Your task to perform on an android device: change keyboard looks Image 0: 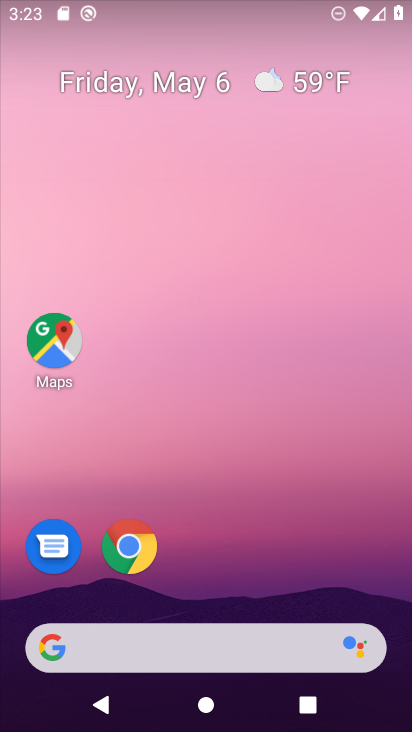
Step 0: drag from (221, 624) to (228, 274)
Your task to perform on an android device: change keyboard looks Image 1: 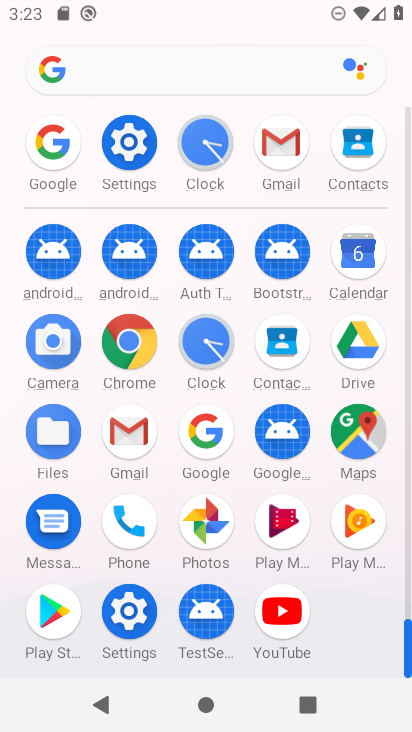
Step 1: drag from (183, 597) to (215, 322)
Your task to perform on an android device: change keyboard looks Image 2: 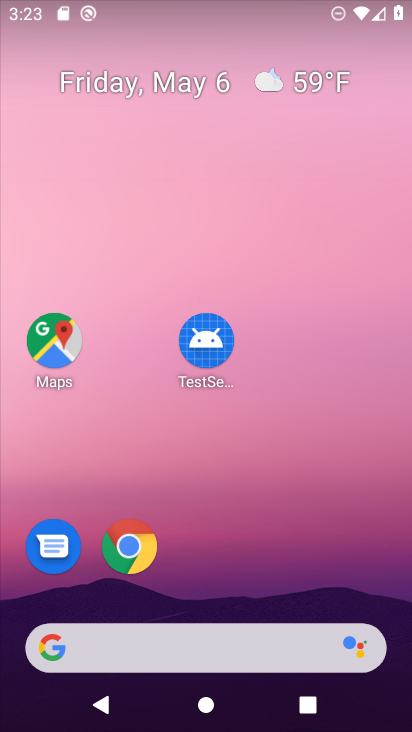
Step 2: click (140, 136)
Your task to perform on an android device: change keyboard looks Image 3: 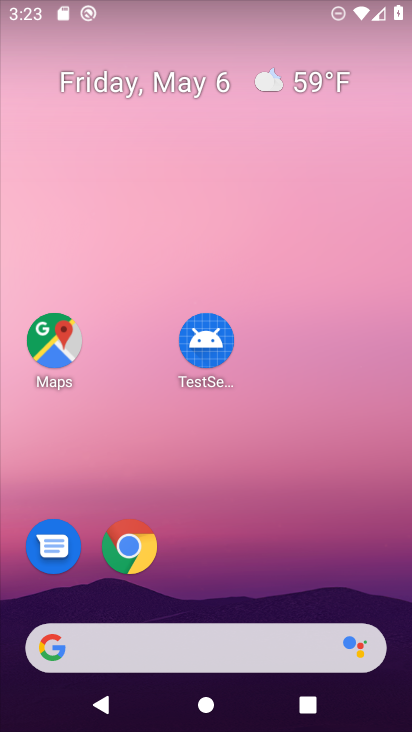
Step 3: drag from (193, 622) to (193, 191)
Your task to perform on an android device: change keyboard looks Image 4: 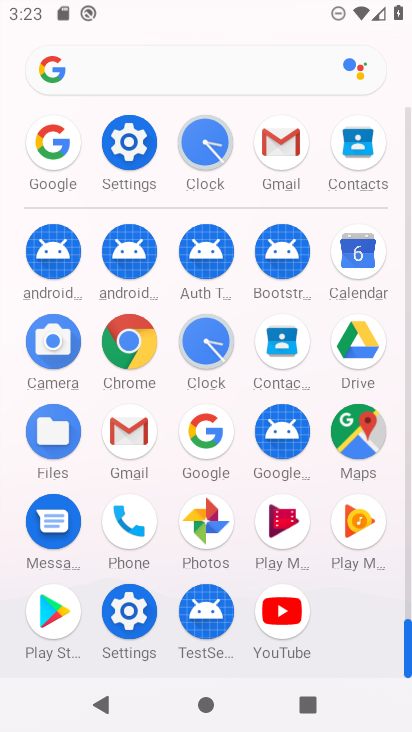
Step 4: click (129, 136)
Your task to perform on an android device: change keyboard looks Image 5: 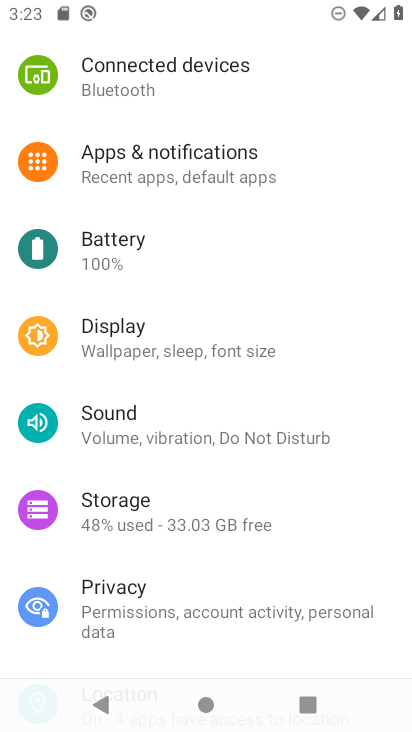
Step 5: drag from (123, 660) to (184, 267)
Your task to perform on an android device: change keyboard looks Image 6: 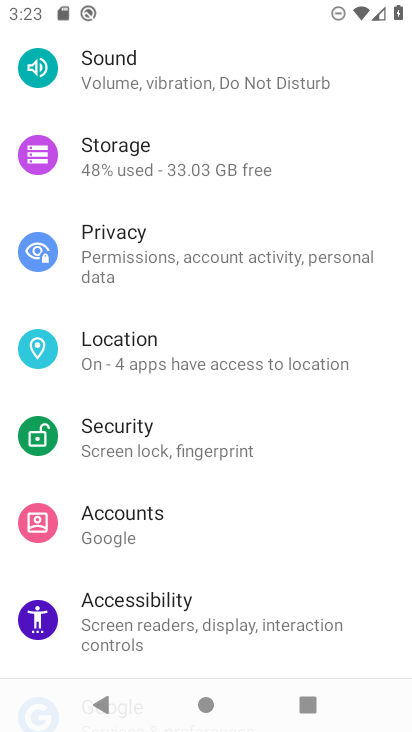
Step 6: drag from (121, 620) to (162, 312)
Your task to perform on an android device: change keyboard looks Image 7: 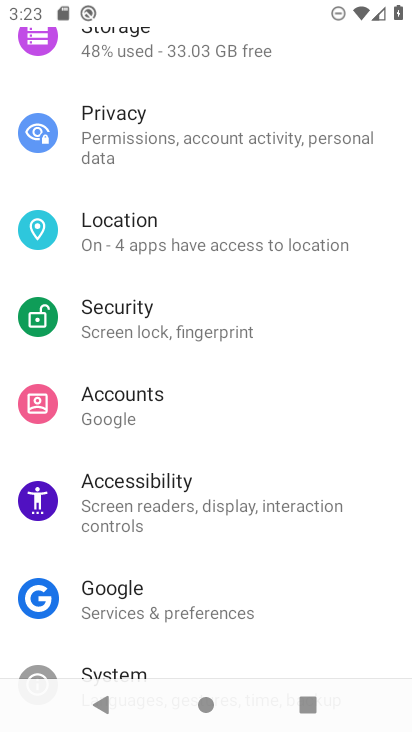
Step 7: drag from (209, 664) to (199, 385)
Your task to perform on an android device: change keyboard looks Image 8: 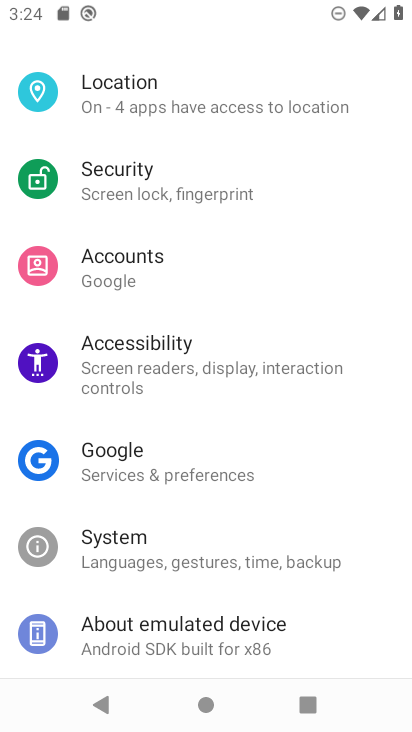
Step 8: click (168, 549)
Your task to perform on an android device: change keyboard looks Image 9: 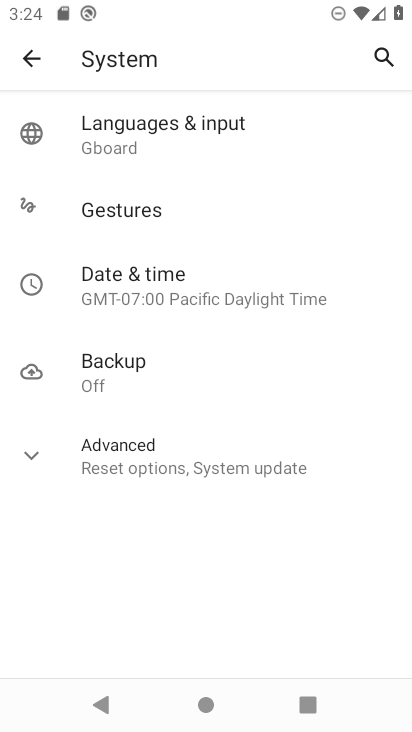
Step 9: click (142, 128)
Your task to perform on an android device: change keyboard looks Image 10: 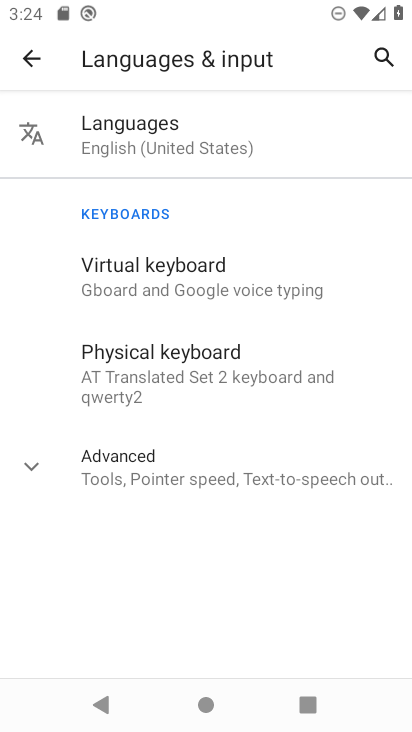
Step 10: click (142, 269)
Your task to perform on an android device: change keyboard looks Image 11: 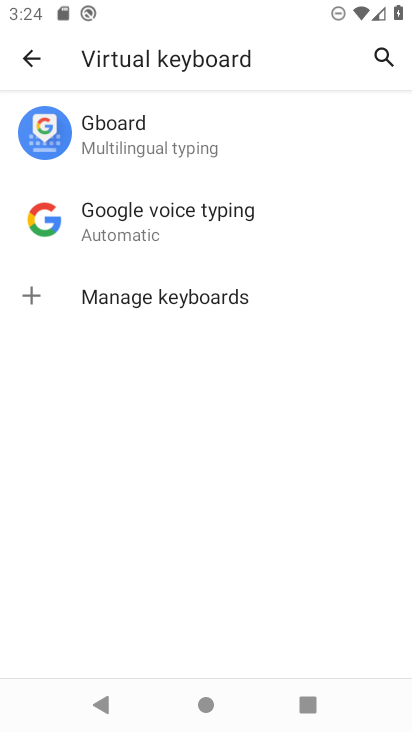
Step 11: click (147, 130)
Your task to perform on an android device: change keyboard looks Image 12: 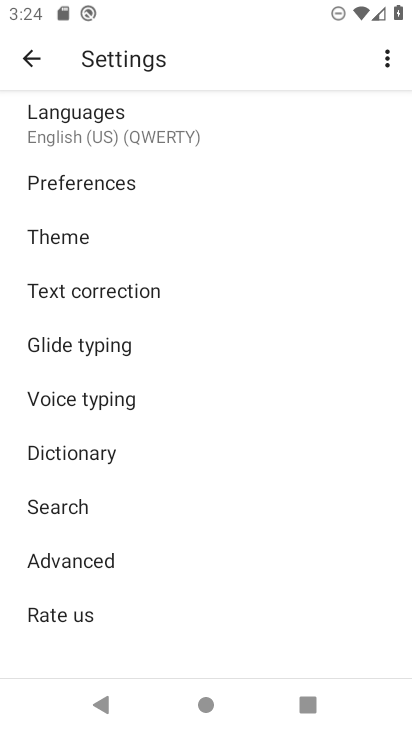
Step 12: click (49, 239)
Your task to perform on an android device: change keyboard looks Image 13: 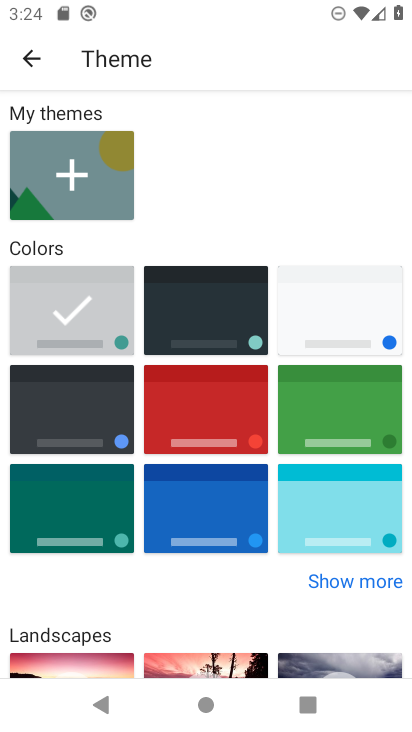
Step 13: click (213, 331)
Your task to perform on an android device: change keyboard looks Image 14: 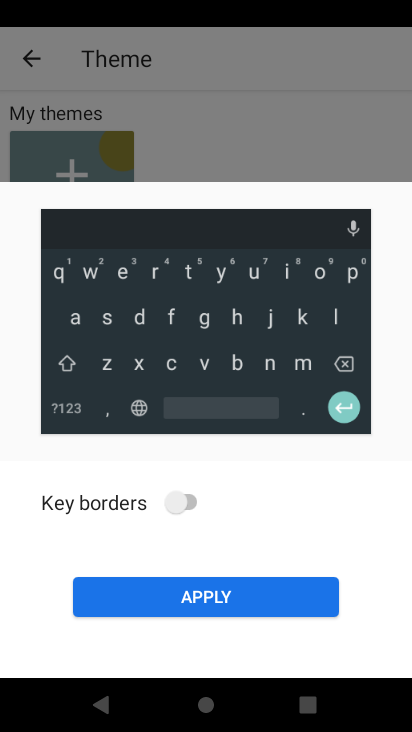
Step 14: click (241, 612)
Your task to perform on an android device: change keyboard looks Image 15: 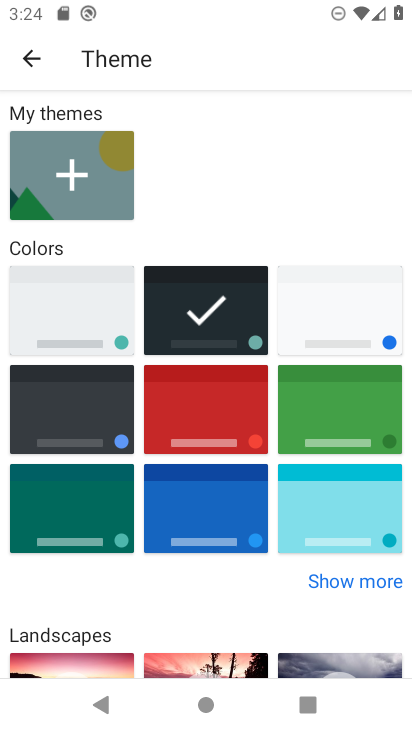
Step 15: task complete